Your task to perform on an android device: Open calendar and show me the fourth week of next month Image 0: 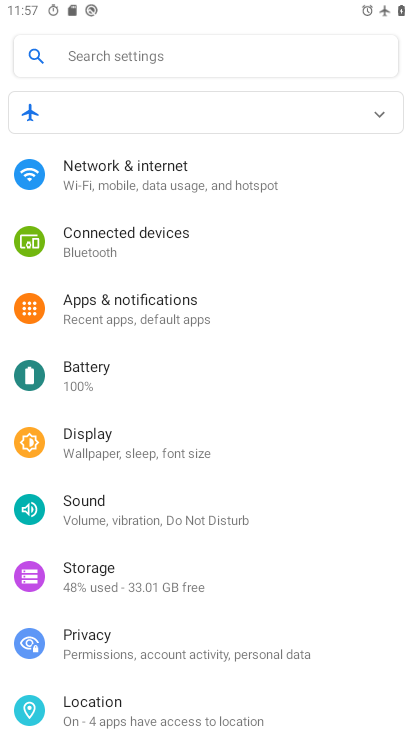
Step 0: press back button
Your task to perform on an android device: Open calendar and show me the fourth week of next month Image 1: 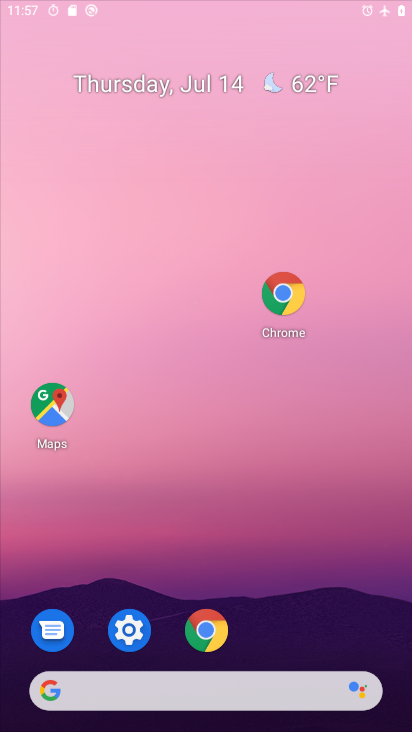
Step 1: press back button
Your task to perform on an android device: Open calendar and show me the fourth week of next month Image 2: 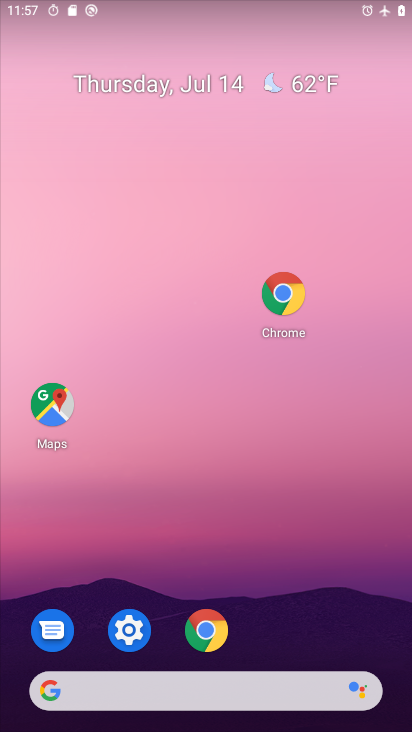
Step 2: drag from (205, 340) to (188, 115)
Your task to perform on an android device: Open calendar and show me the fourth week of next month Image 3: 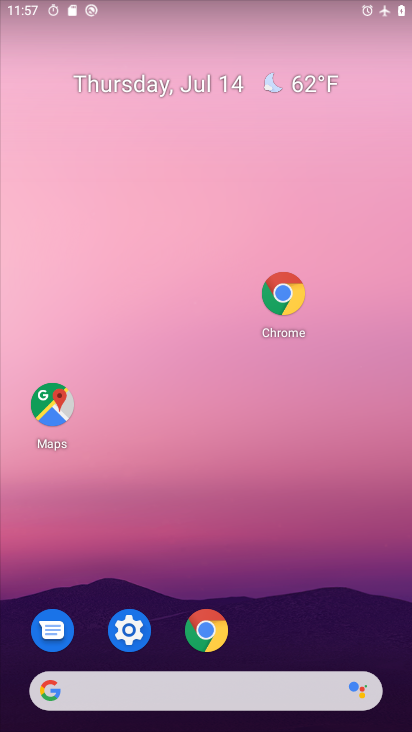
Step 3: drag from (232, 529) to (170, 146)
Your task to perform on an android device: Open calendar and show me the fourth week of next month Image 4: 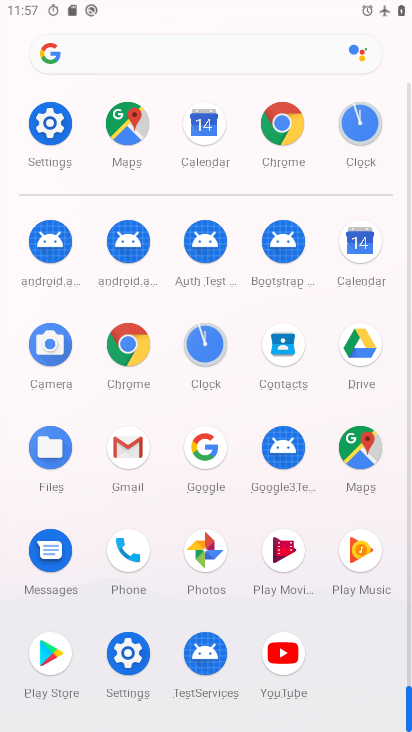
Step 4: click (364, 243)
Your task to perform on an android device: Open calendar and show me the fourth week of next month Image 5: 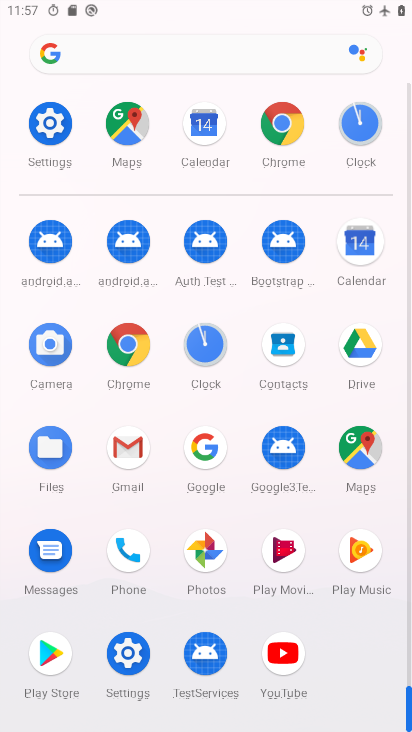
Step 5: click (364, 243)
Your task to perform on an android device: Open calendar and show me the fourth week of next month Image 6: 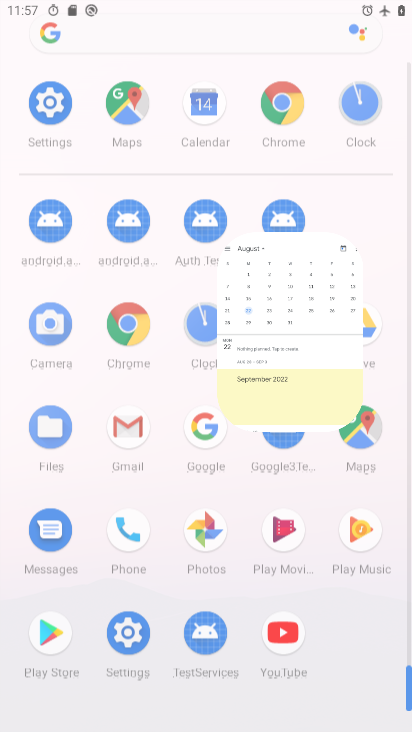
Step 6: click (364, 242)
Your task to perform on an android device: Open calendar and show me the fourth week of next month Image 7: 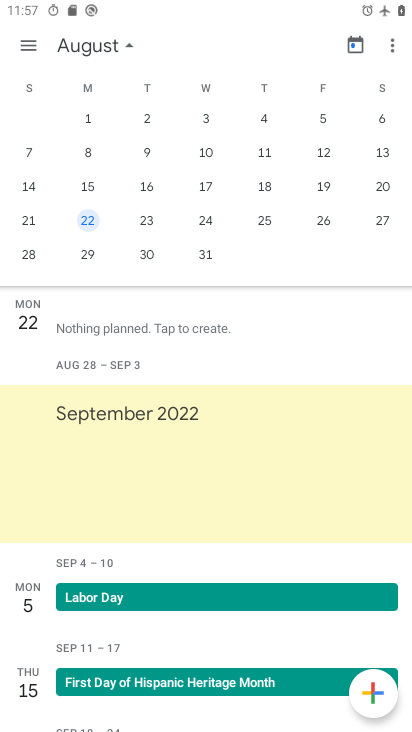
Step 7: task complete